Your task to perform on an android device: Go to eBay Image 0: 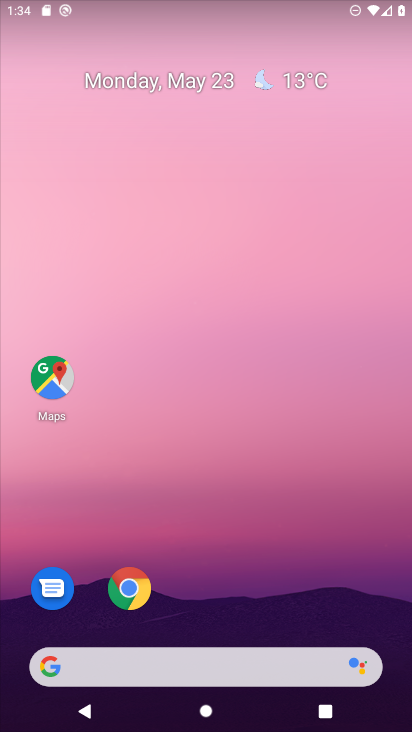
Step 0: click (141, 592)
Your task to perform on an android device: Go to eBay Image 1: 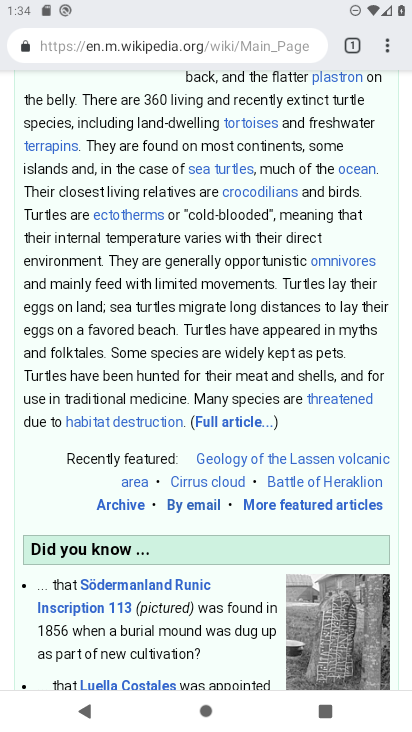
Step 1: click (135, 590)
Your task to perform on an android device: Go to eBay Image 2: 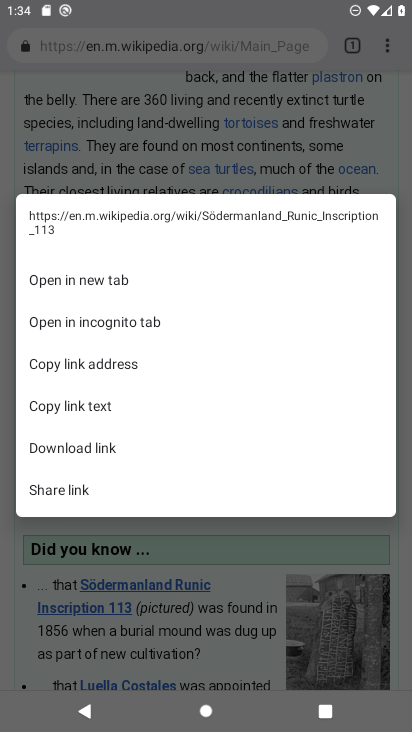
Step 2: click (353, 46)
Your task to perform on an android device: Go to eBay Image 3: 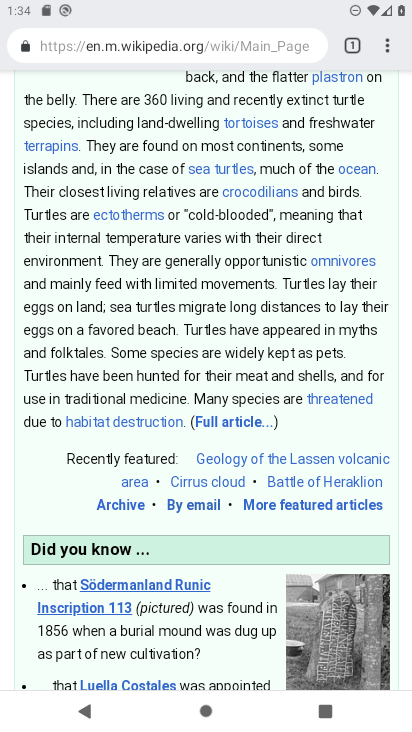
Step 3: click (355, 42)
Your task to perform on an android device: Go to eBay Image 4: 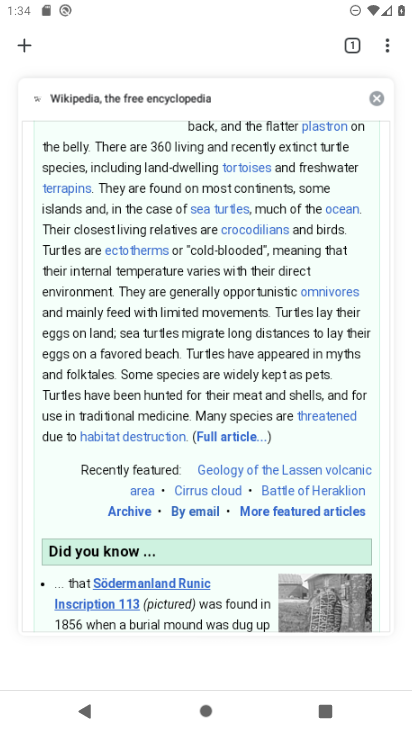
Step 4: click (370, 103)
Your task to perform on an android device: Go to eBay Image 5: 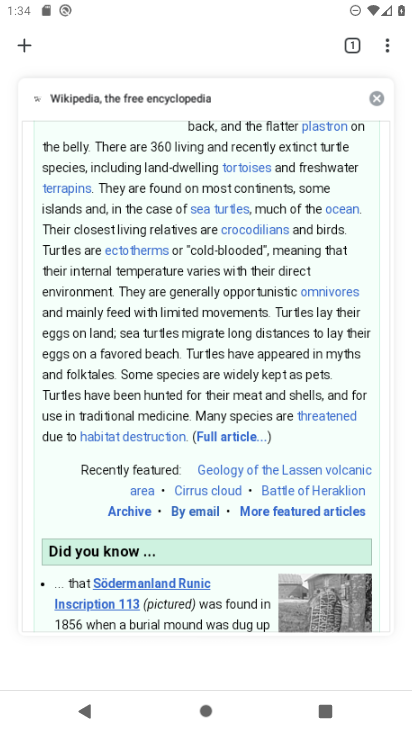
Step 5: press home button
Your task to perform on an android device: Go to eBay Image 6: 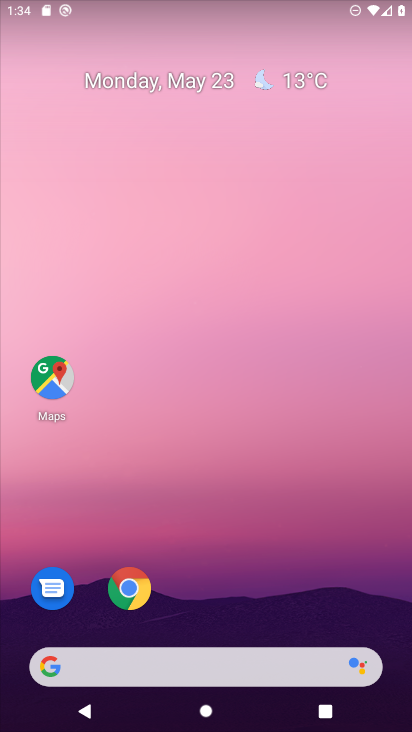
Step 6: drag from (213, 471) to (202, 357)
Your task to perform on an android device: Go to eBay Image 7: 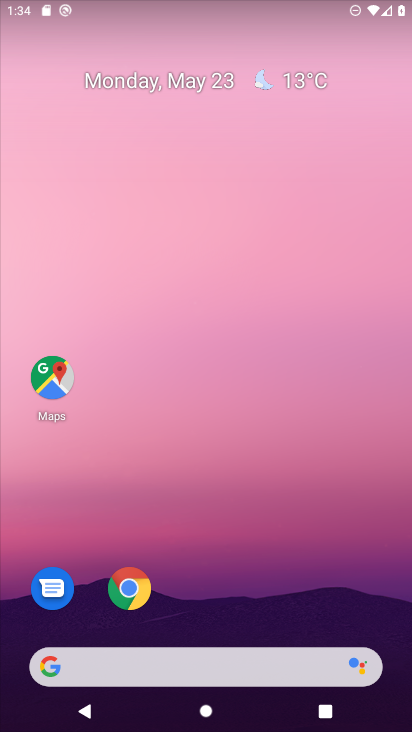
Step 7: click (127, 597)
Your task to perform on an android device: Go to eBay Image 8: 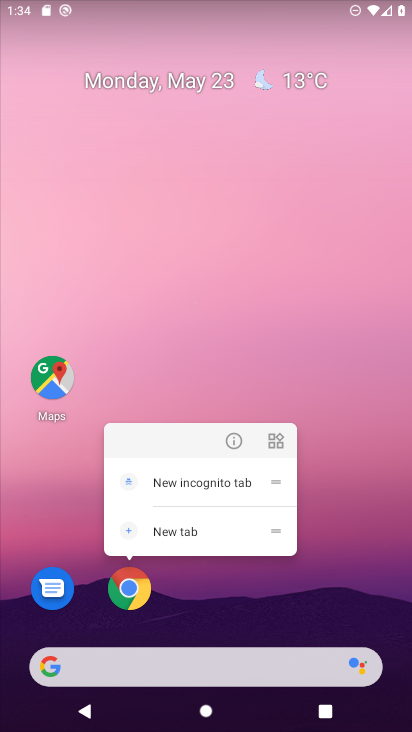
Step 8: click (127, 597)
Your task to perform on an android device: Go to eBay Image 9: 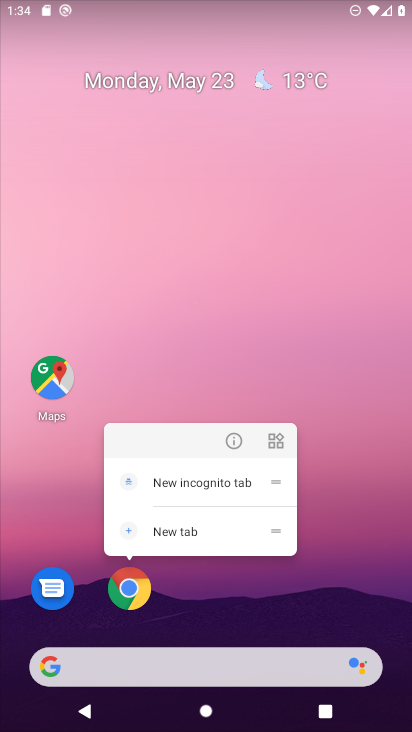
Step 9: click (127, 592)
Your task to perform on an android device: Go to eBay Image 10: 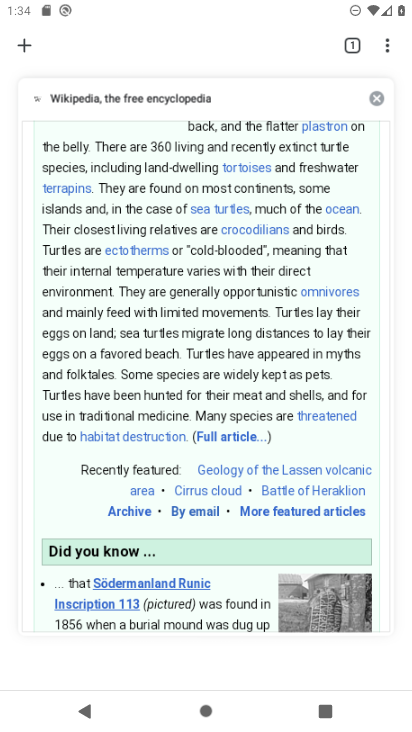
Step 10: click (372, 96)
Your task to perform on an android device: Go to eBay Image 11: 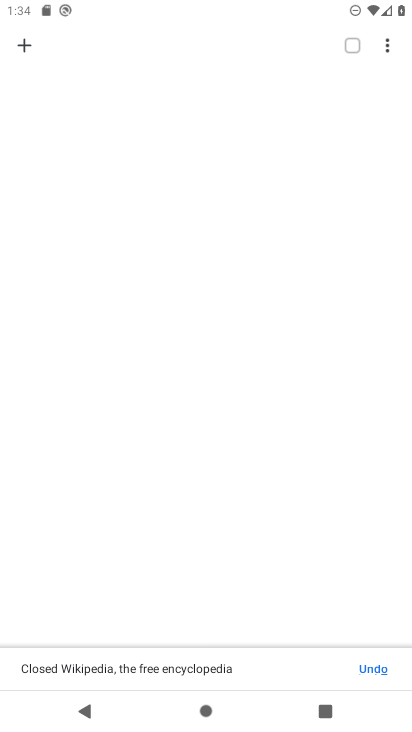
Step 11: click (27, 45)
Your task to perform on an android device: Go to eBay Image 12: 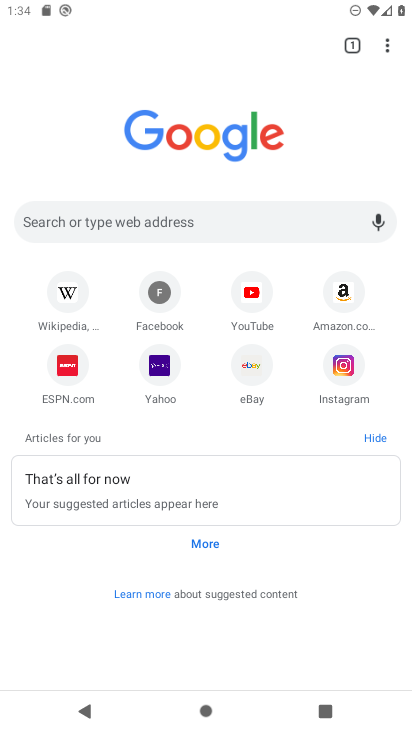
Step 12: click (263, 365)
Your task to perform on an android device: Go to eBay Image 13: 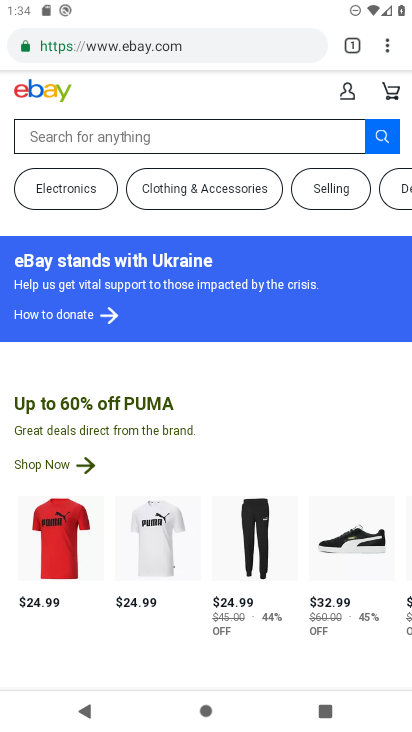
Step 13: task complete